Your task to perform on an android device: Go to privacy settings Image 0: 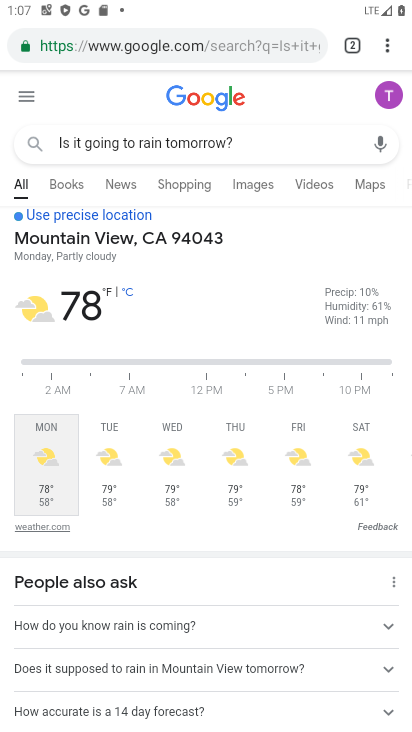
Step 0: press home button
Your task to perform on an android device: Go to privacy settings Image 1: 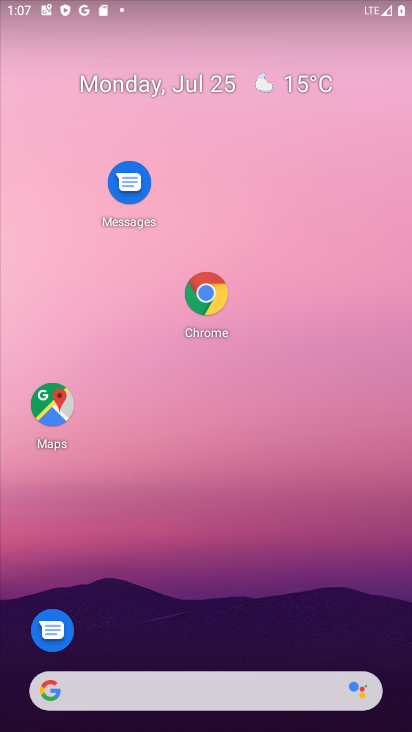
Step 1: drag from (192, 527) to (232, 4)
Your task to perform on an android device: Go to privacy settings Image 2: 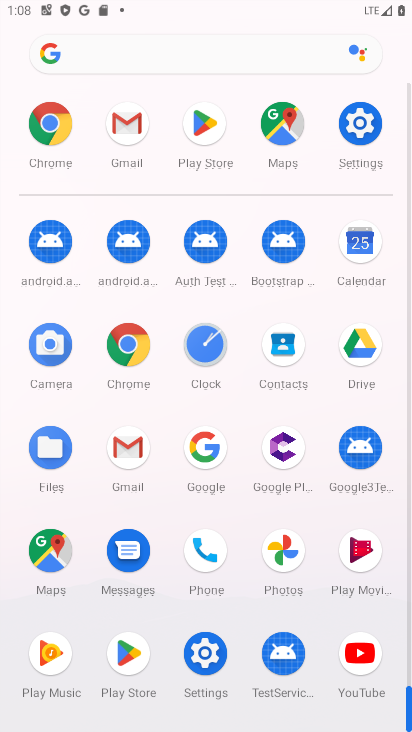
Step 2: click (359, 181)
Your task to perform on an android device: Go to privacy settings Image 3: 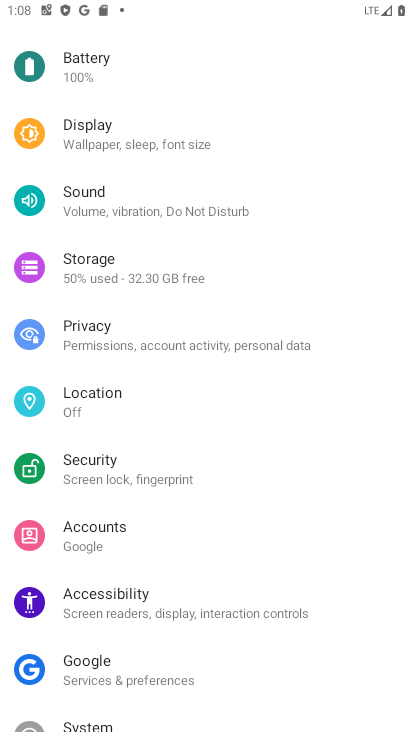
Step 3: click (153, 319)
Your task to perform on an android device: Go to privacy settings Image 4: 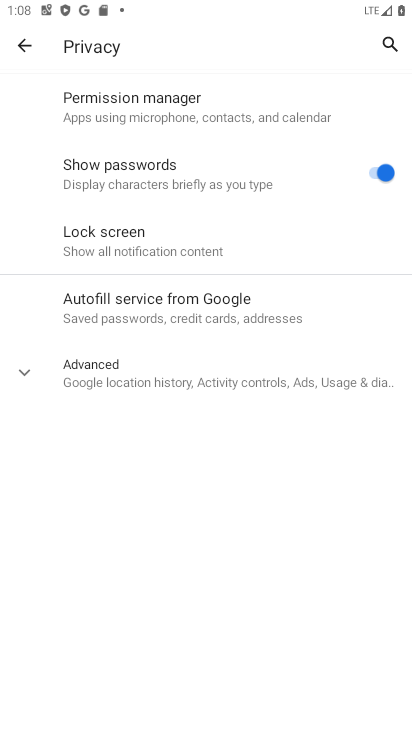
Step 4: task complete